Your task to perform on an android device: Set the phone to "Do not disturb". Image 0: 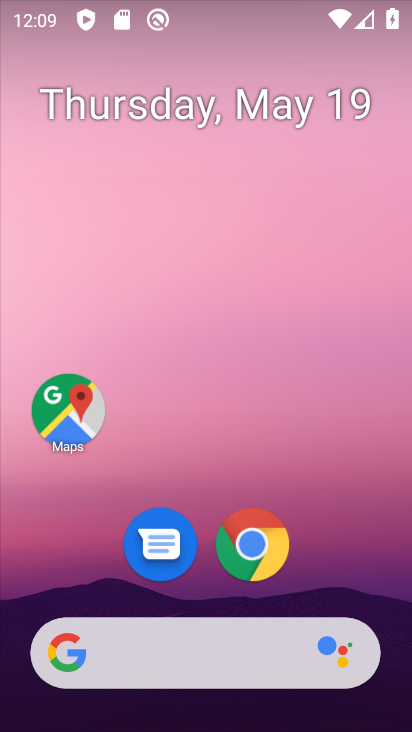
Step 0: drag from (331, 562) to (257, 91)
Your task to perform on an android device: Set the phone to "Do not disturb". Image 1: 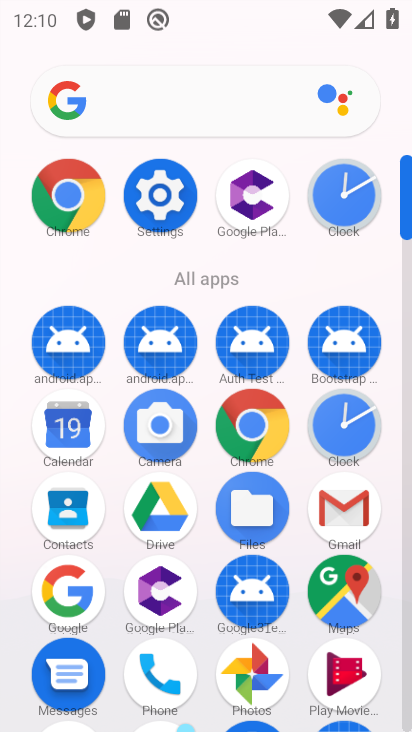
Step 1: click (154, 214)
Your task to perform on an android device: Set the phone to "Do not disturb". Image 2: 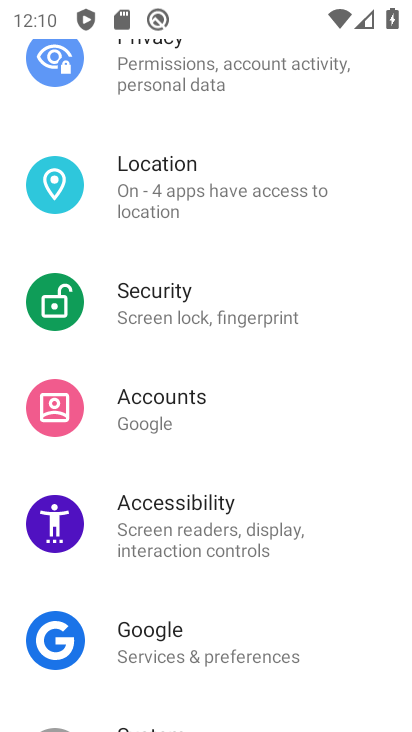
Step 2: drag from (138, 167) to (150, 577)
Your task to perform on an android device: Set the phone to "Do not disturb". Image 3: 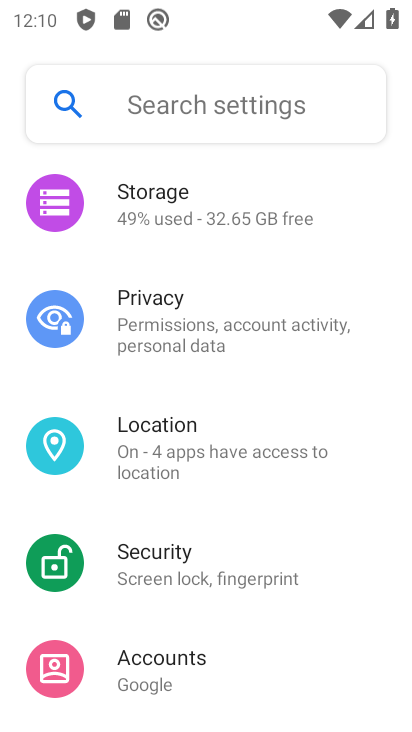
Step 3: drag from (166, 283) to (175, 622)
Your task to perform on an android device: Set the phone to "Do not disturb". Image 4: 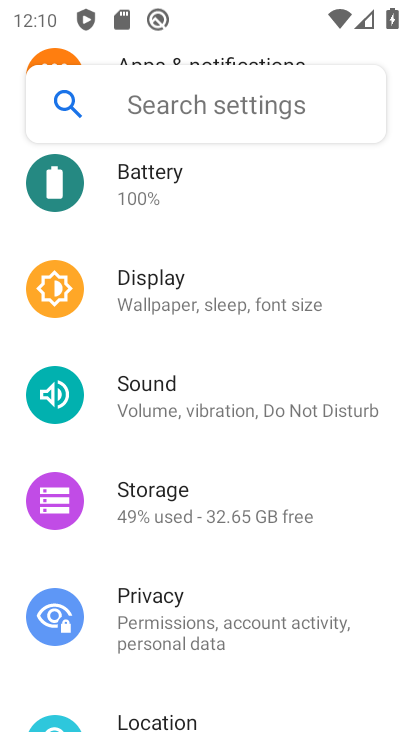
Step 4: click (179, 312)
Your task to perform on an android device: Set the phone to "Do not disturb". Image 5: 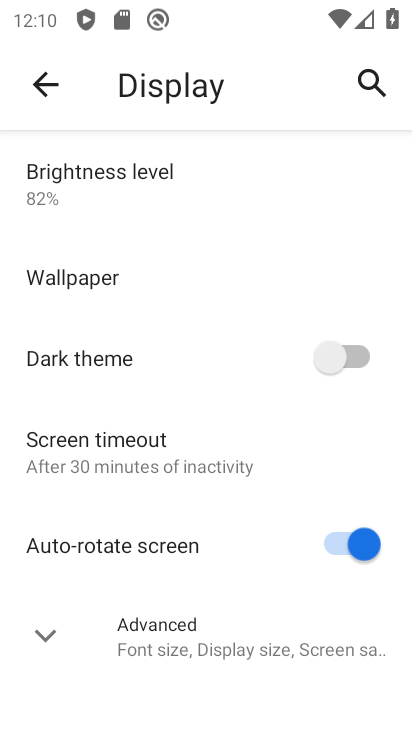
Step 5: click (244, 625)
Your task to perform on an android device: Set the phone to "Do not disturb". Image 6: 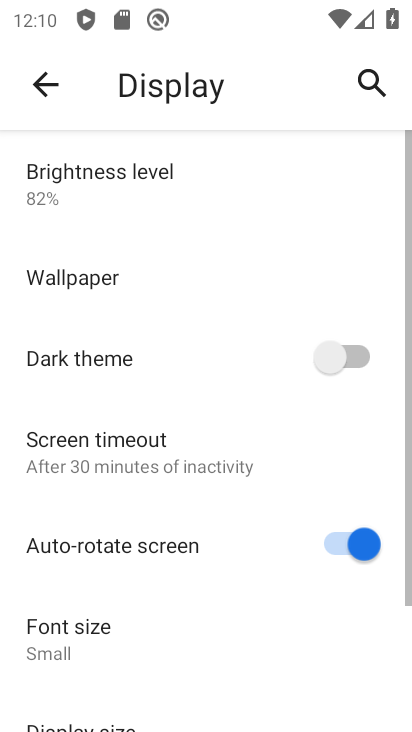
Step 6: drag from (229, 579) to (173, 164)
Your task to perform on an android device: Set the phone to "Do not disturb". Image 7: 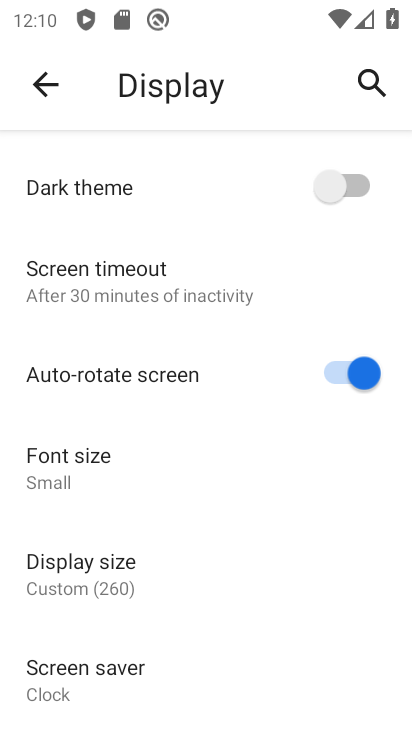
Step 7: drag from (173, 659) to (176, 314)
Your task to perform on an android device: Set the phone to "Do not disturb". Image 8: 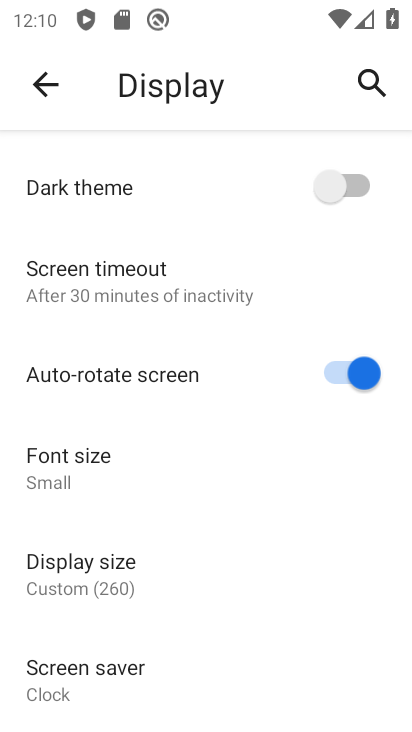
Step 8: drag from (134, 269) to (136, 622)
Your task to perform on an android device: Set the phone to "Do not disturb". Image 9: 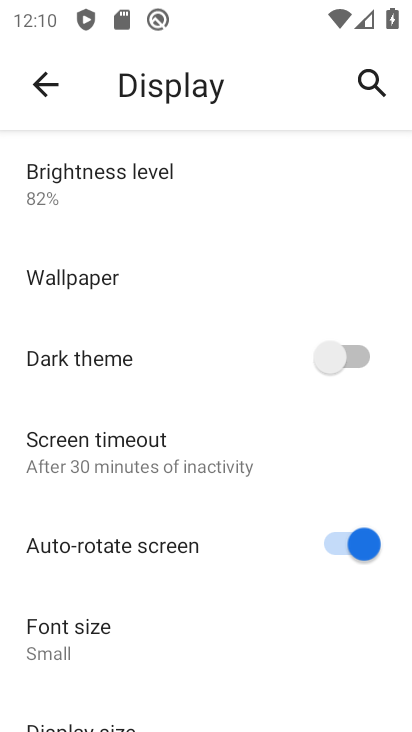
Step 9: click (25, 98)
Your task to perform on an android device: Set the phone to "Do not disturb". Image 10: 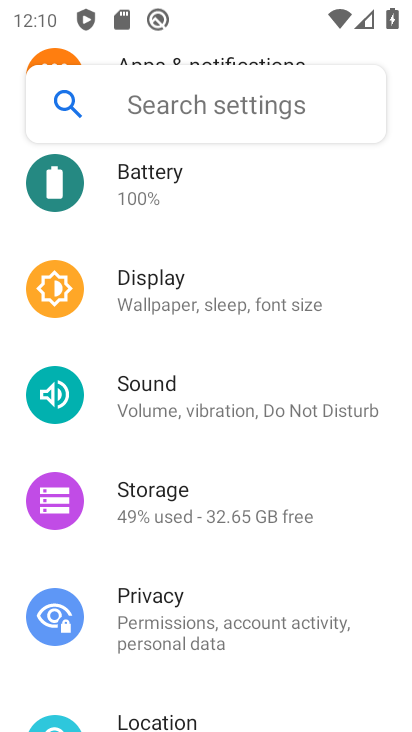
Step 10: click (185, 363)
Your task to perform on an android device: Set the phone to "Do not disturb". Image 11: 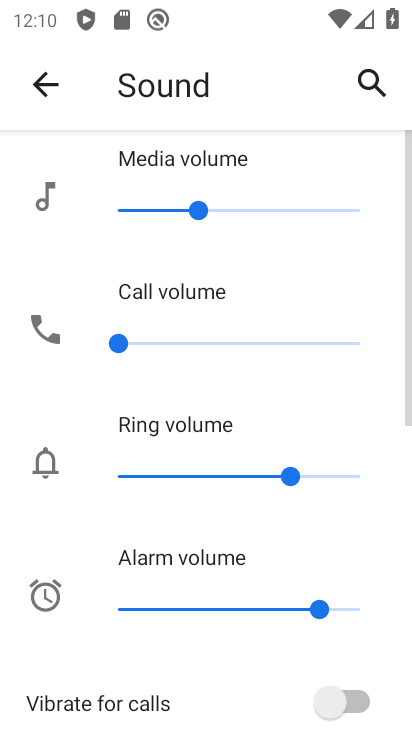
Step 11: drag from (267, 644) to (239, 173)
Your task to perform on an android device: Set the phone to "Do not disturb". Image 12: 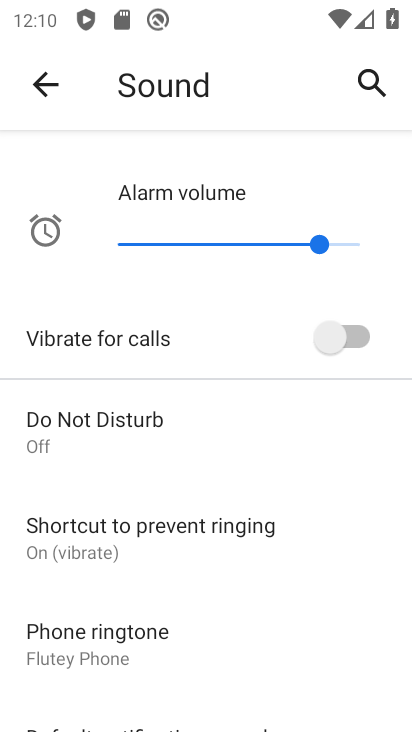
Step 12: click (186, 461)
Your task to perform on an android device: Set the phone to "Do not disturb". Image 13: 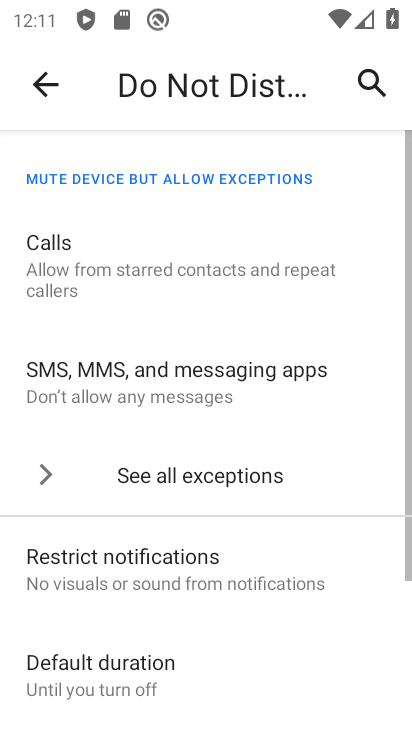
Step 13: drag from (218, 638) to (211, 185)
Your task to perform on an android device: Set the phone to "Do not disturb". Image 14: 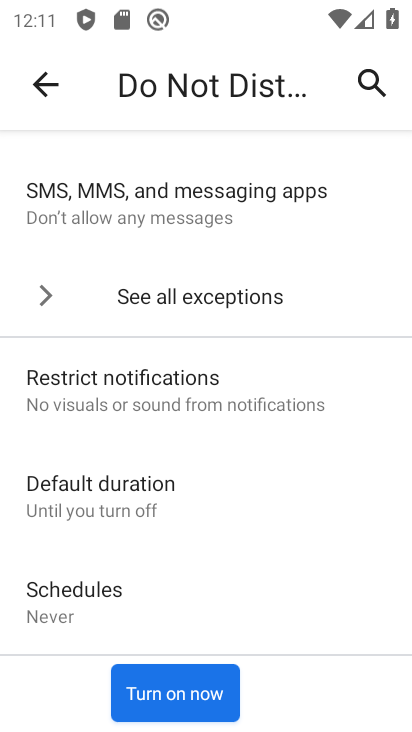
Step 14: click (197, 694)
Your task to perform on an android device: Set the phone to "Do not disturb". Image 15: 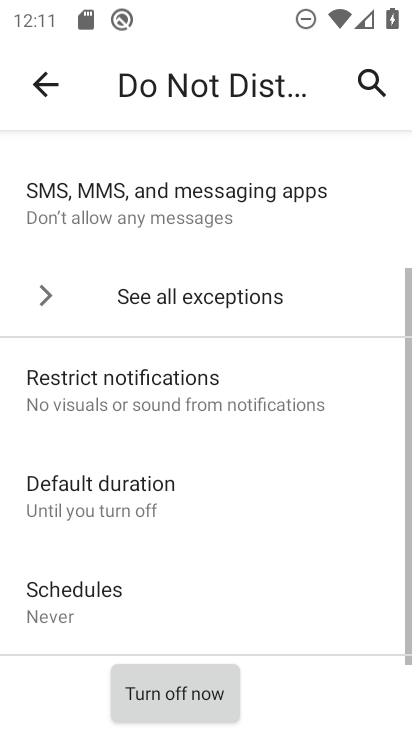
Step 15: task complete